Your task to perform on an android device: When is my next appointment? Image 0: 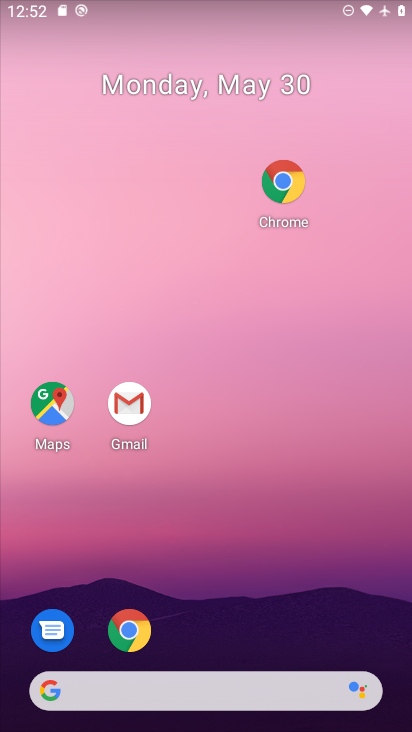
Step 0: drag from (236, 554) to (149, 148)
Your task to perform on an android device: When is my next appointment? Image 1: 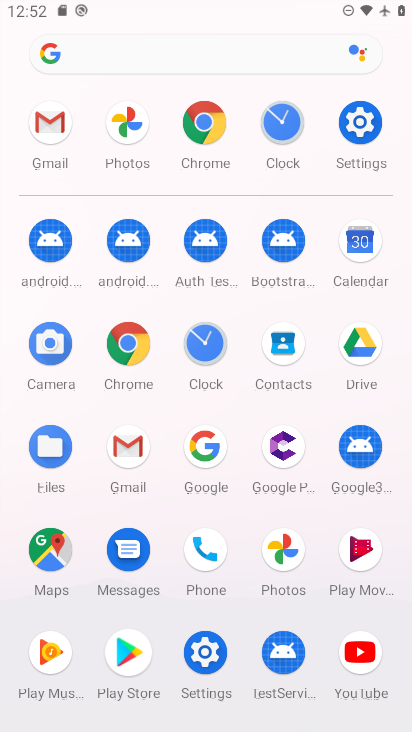
Step 1: click (359, 225)
Your task to perform on an android device: When is my next appointment? Image 2: 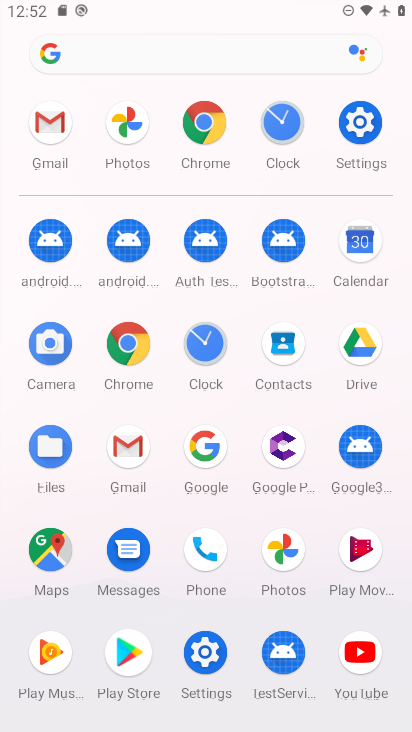
Step 2: click (359, 225)
Your task to perform on an android device: When is my next appointment? Image 3: 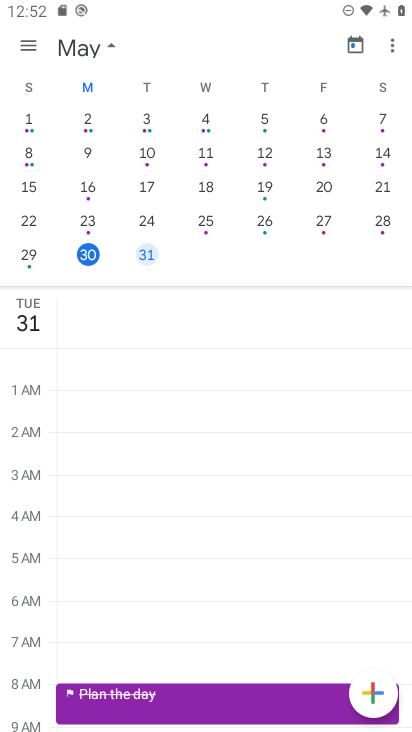
Step 3: click (152, 245)
Your task to perform on an android device: When is my next appointment? Image 4: 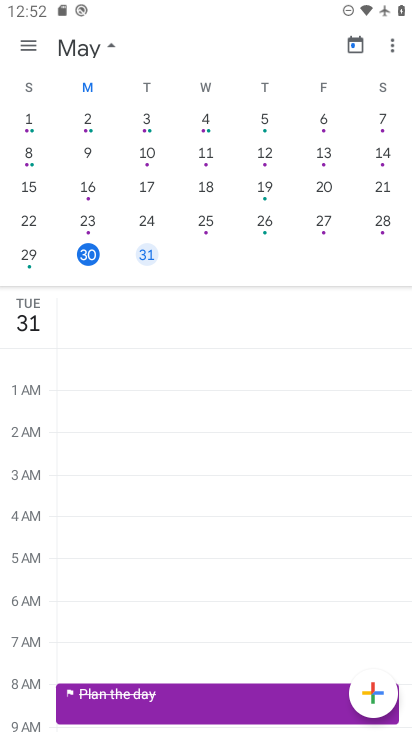
Step 4: click (152, 245)
Your task to perform on an android device: When is my next appointment? Image 5: 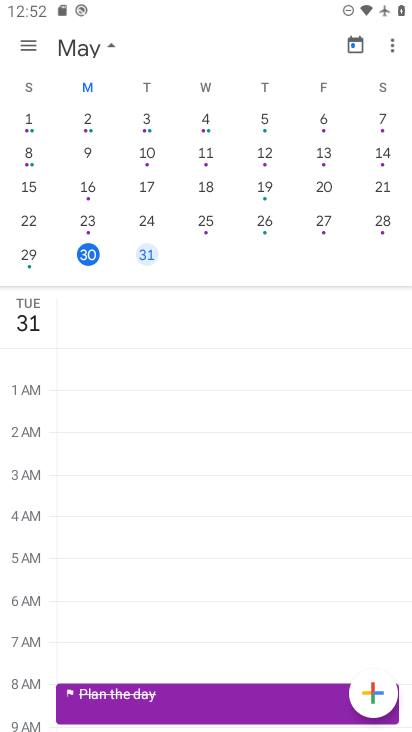
Step 5: click (150, 247)
Your task to perform on an android device: When is my next appointment? Image 6: 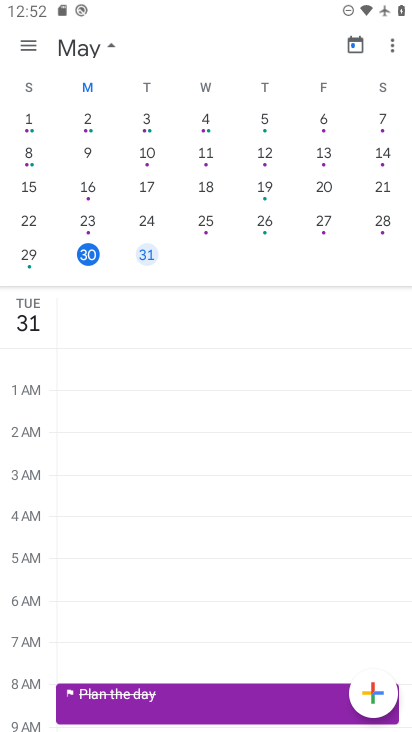
Step 6: click (24, 44)
Your task to perform on an android device: When is my next appointment? Image 7: 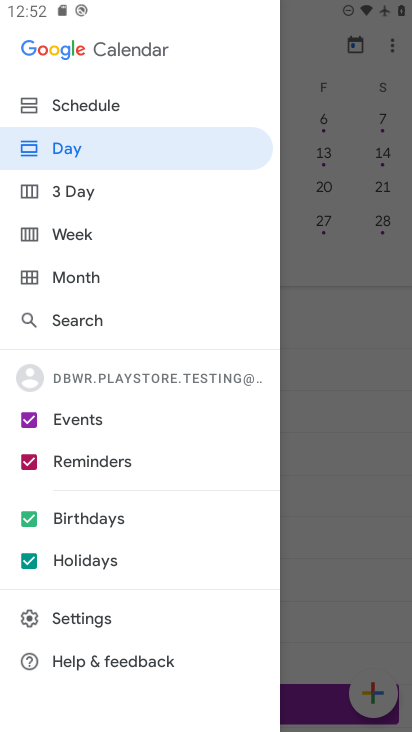
Step 7: click (83, 105)
Your task to perform on an android device: When is my next appointment? Image 8: 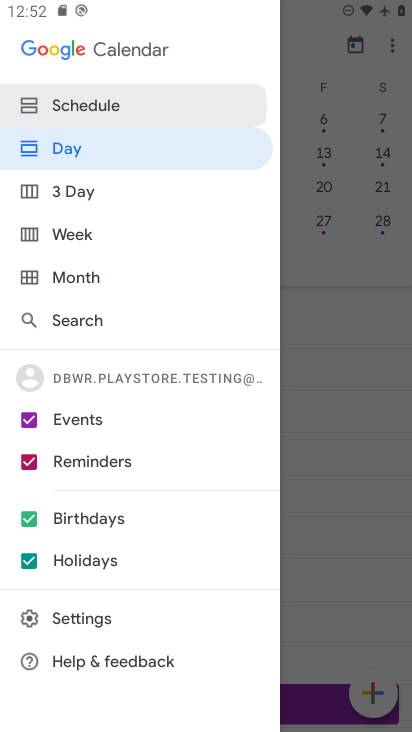
Step 8: click (83, 106)
Your task to perform on an android device: When is my next appointment? Image 9: 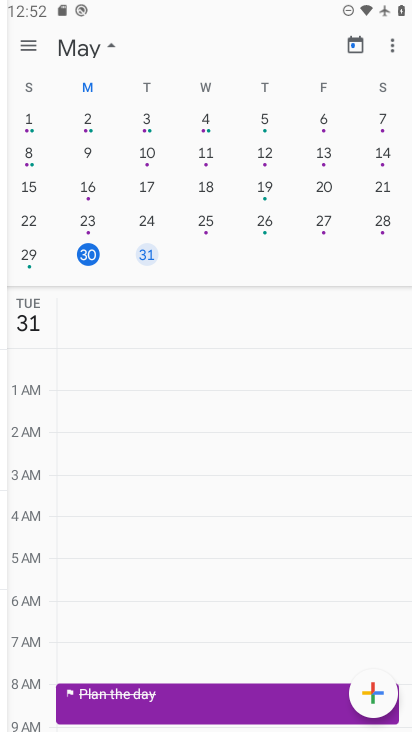
Step 9: click (83, 106)
Your task to perform on an android device: When is my next appointment? Image 10: 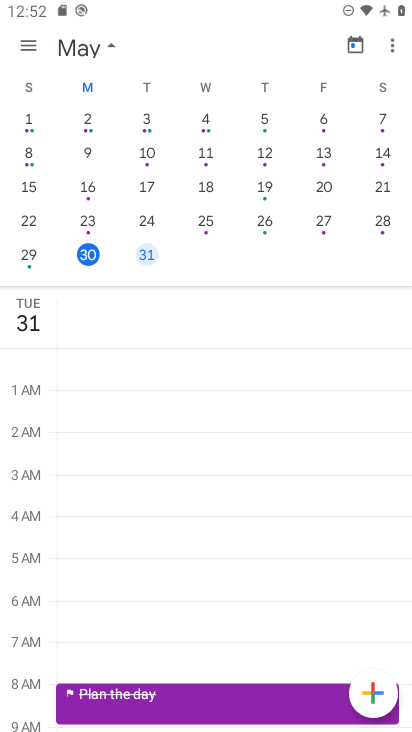
Step 10: click (84, 108)
Your task to perform on an android device: When is my next appointment? Image 11: 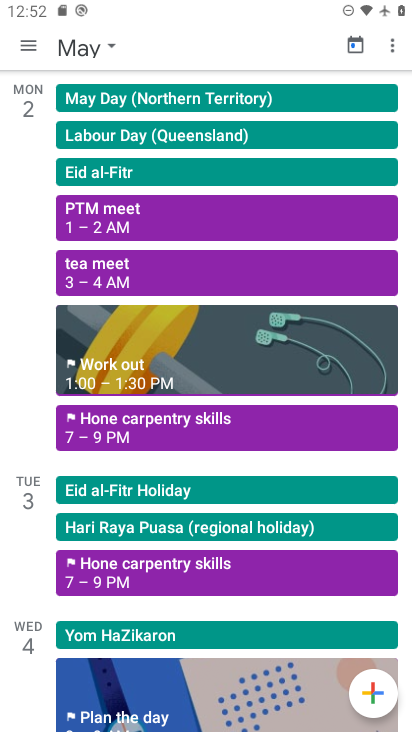
Step 11: drag from (124, 460) to (106, 211)
Your task to perform on an android device: When is my next appointment? Image 12: 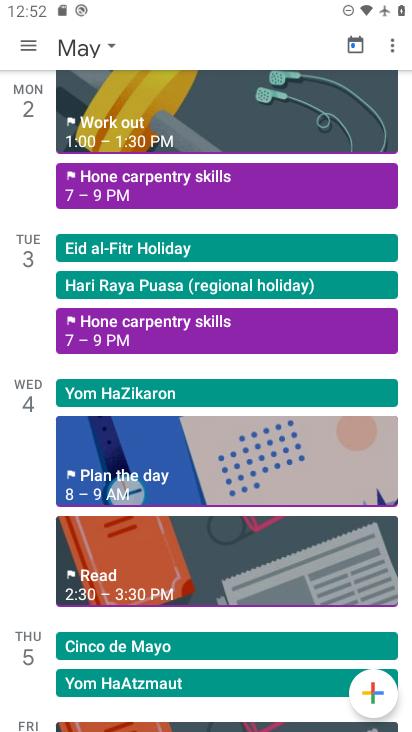
Step 12: drag from (116, 596) to (96, 197)
Your task to perform on an android device: When is my next appointment? Image 13: 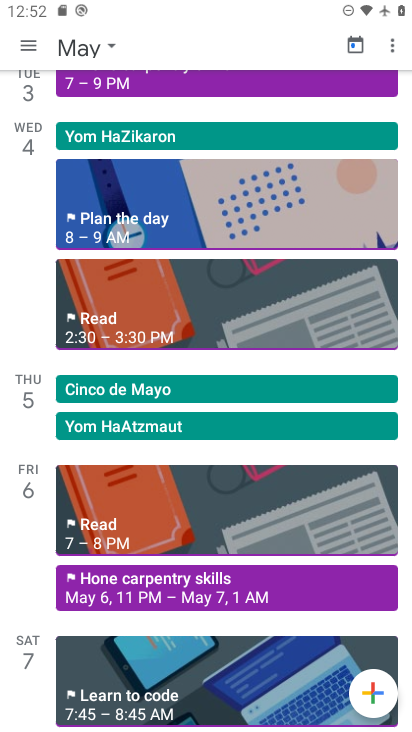
Step 13: drag from (101, 536) to (139, 264)
Your task to perform on an android device: When is my next appointment? Image 14: 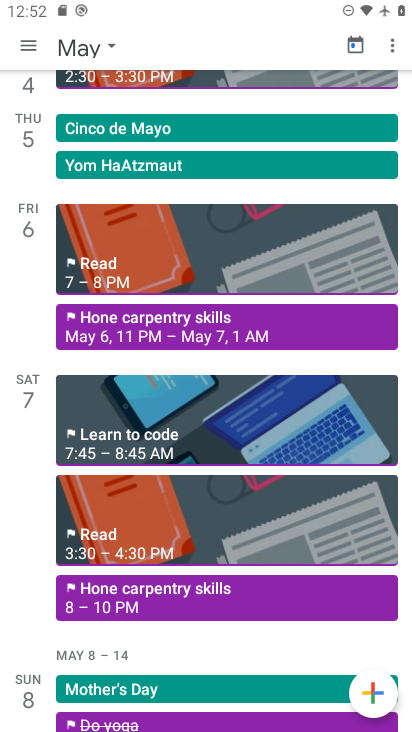
Step 14: drag from (153, 595) to (130, 297)
Your task to perform on an android device: When is my next appointment? Image 15: 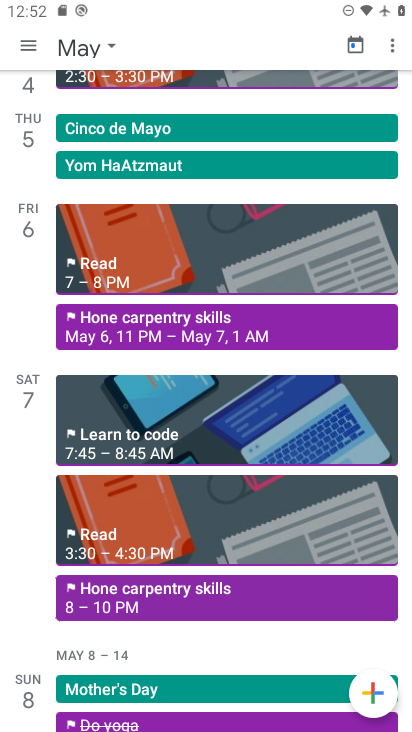
Step 15: drag from (129, 480) to (119, 201)
Your task to perform on an android device: When is my next appointment? Image 16: 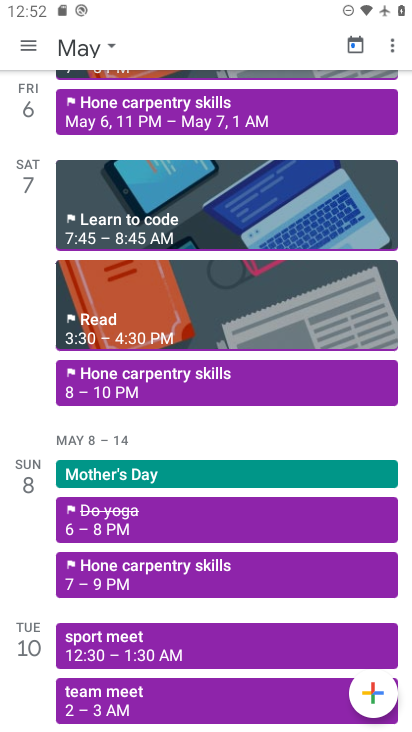
Step 16: drag from (130, 410) to (143, 157)
Your task to perform on an android device: When is my next appointment? Image 17: 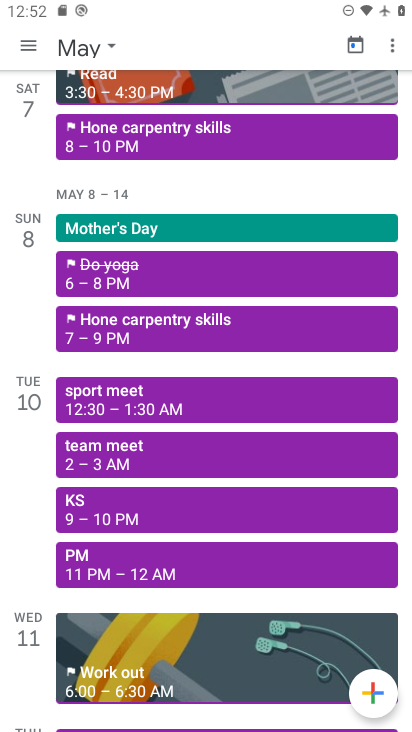
Step 17: drag from (143, 421) to (136, 128)
Your task to perform on an android device: When is my next appointment? Image 18: 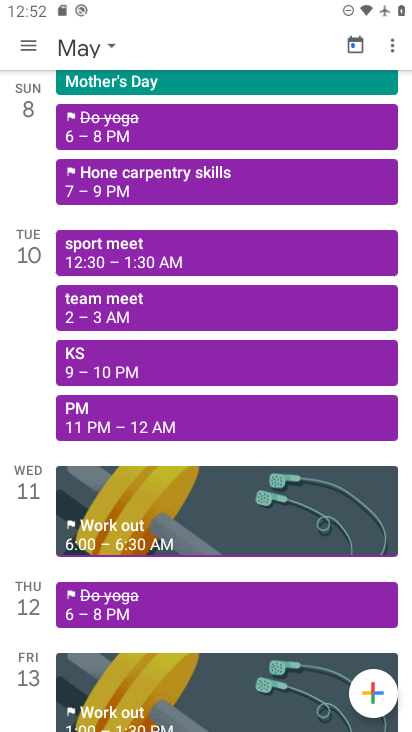
Step 18: drag from (125, 483) to (145, 194)
Your task to perform on an android device: When is my next appointment? Image 19: 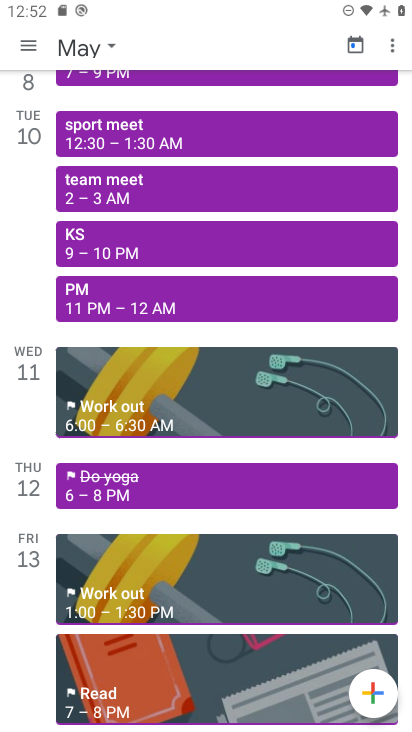
Step 19: drag from (173, 553) to (173, 277)
Your task to perform on an android device: When is my next appointment? Image 20: 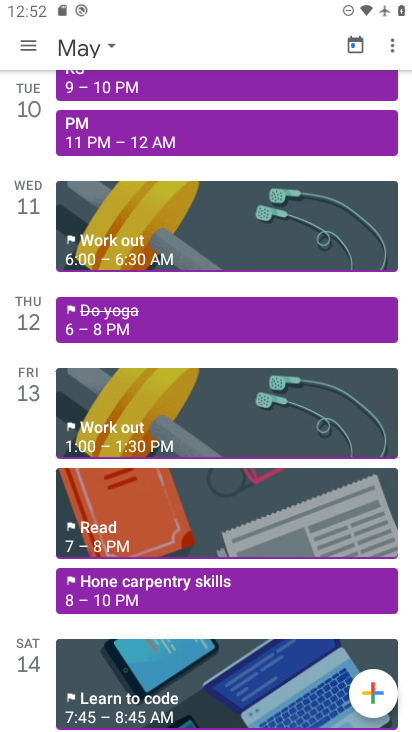
Step 20: drag from (209, 623) to (168, 266)
Your task to perform on an android device: When is my next appointment? Image 21: 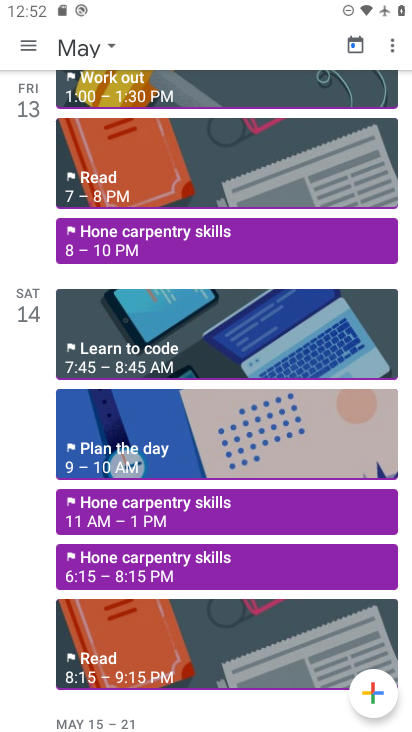
Step 21: drag from (159, 512) to (143, 257)
Your task to perform on an android device: When is my next appointment? Image 22: 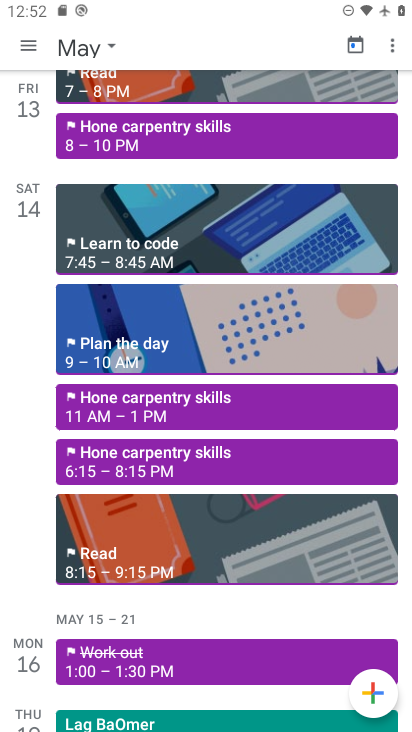
Step 22: click (100, 230)
Your task to perform on an android device: When is my next appointment? Image 23: 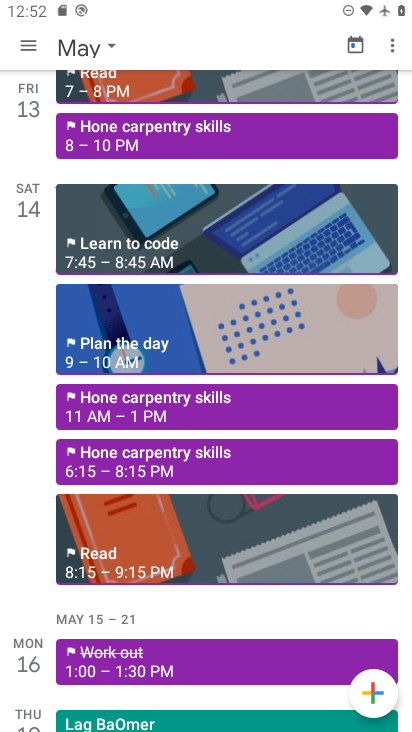
Step 23: task complete